Your task to perform on an android device: open app "Booking.com: Hotels and more" (install if not already installed) and go to login screen Image 0: 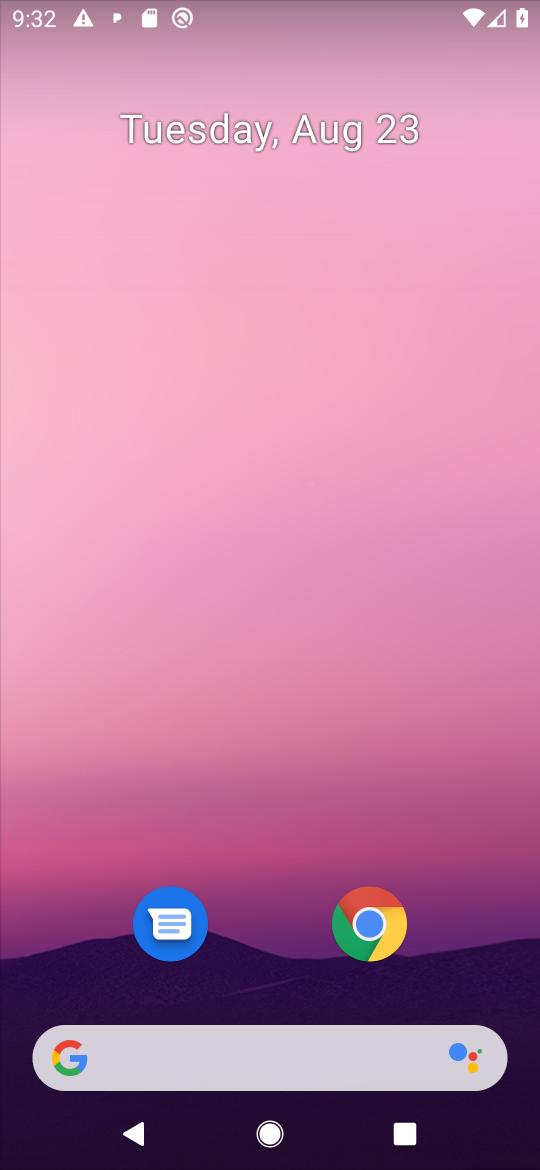
Step 0: drag from (451, 975) to (512, 108)
Your task to perform on an android device: open app "Booking.com: Hotels and more" (install if not already installed) and go to login screen Image 1: 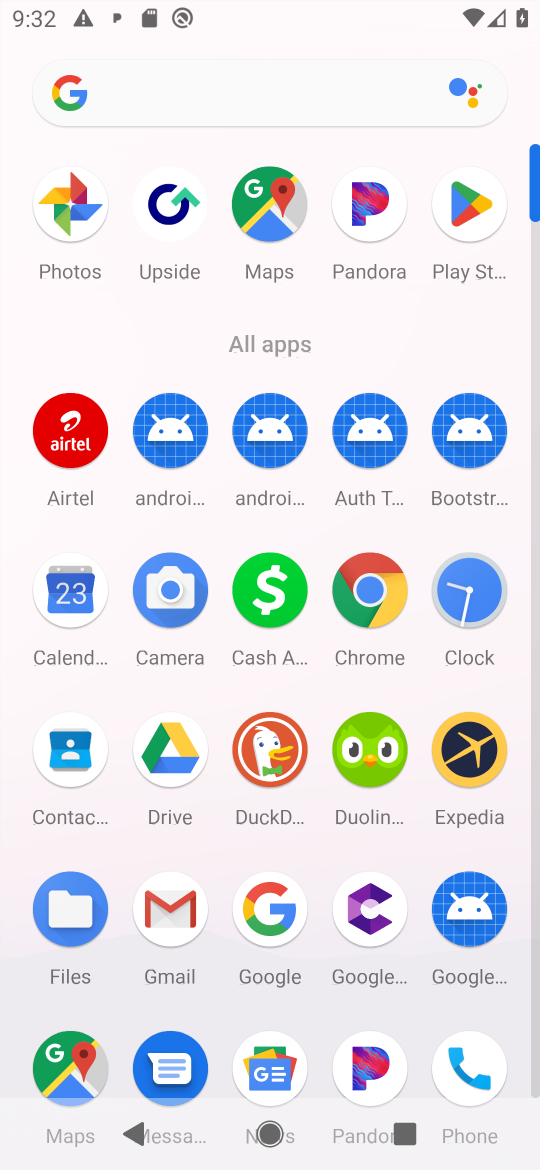
Step 1: click (470, 202)
Your task to perform on an android device: open app "Booking.com: Hotels and more" (install if not already installed) and go to login screen Image 2: 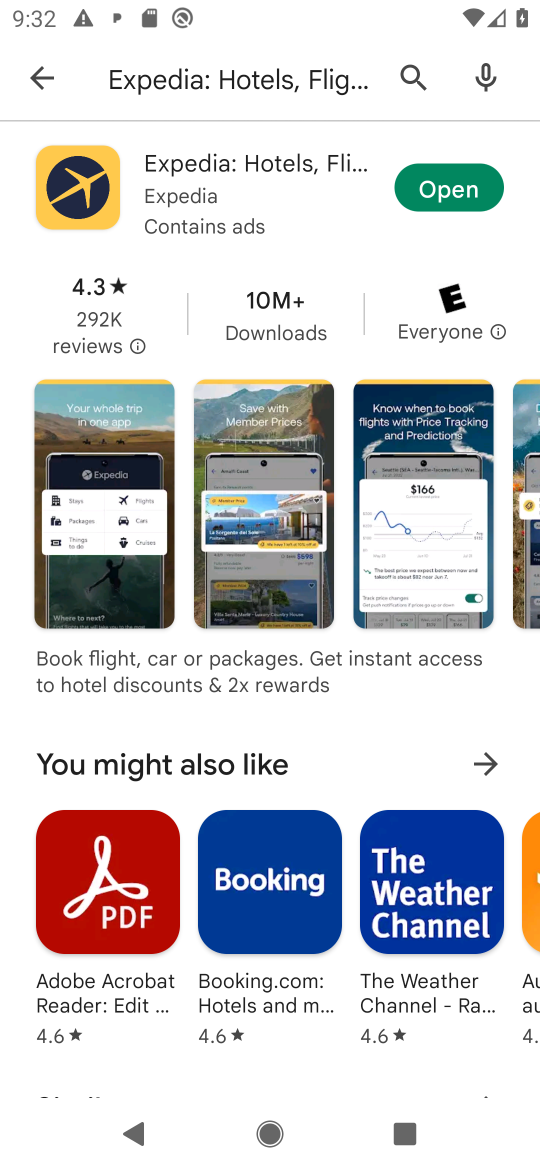
Step 2: press back button
Your task to perform on an android device: open app "Booking.com: Hotels and more" (install if not already installed) and go to login screen Image 3: 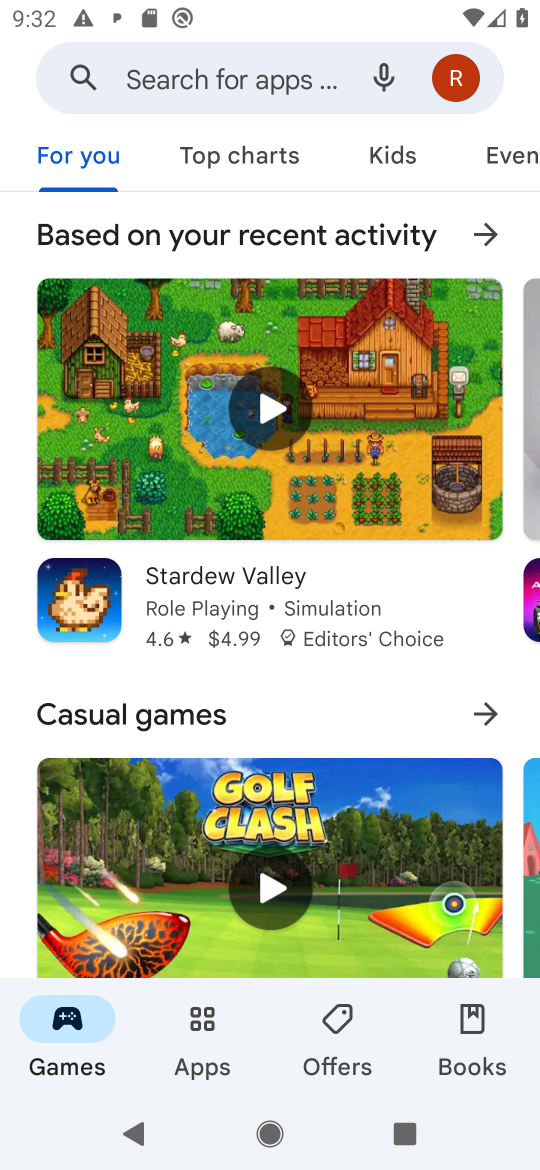
Step 3: click (251, 83)
Your task to perform on an android device: open app "Booking.com: Hotels and more" (install if not already installed) and go to login screen Image 4: 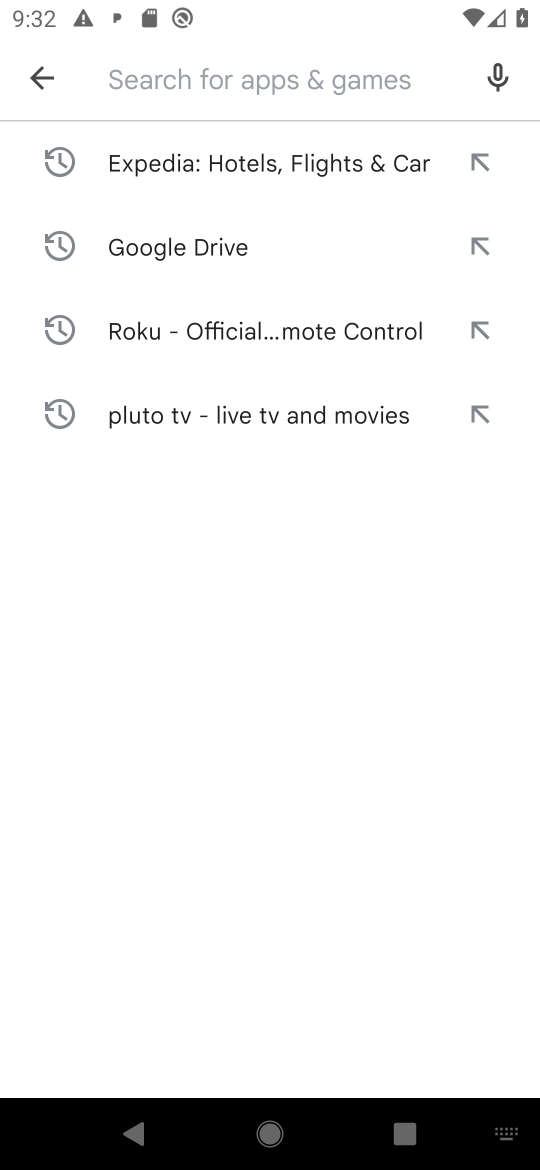
Step 4: type "Booking.com: Hotels and more"
Your task to perform on an android device: open app "Booking.com: Hotels and more" (install if not already installed) and go to login screen Image 5: 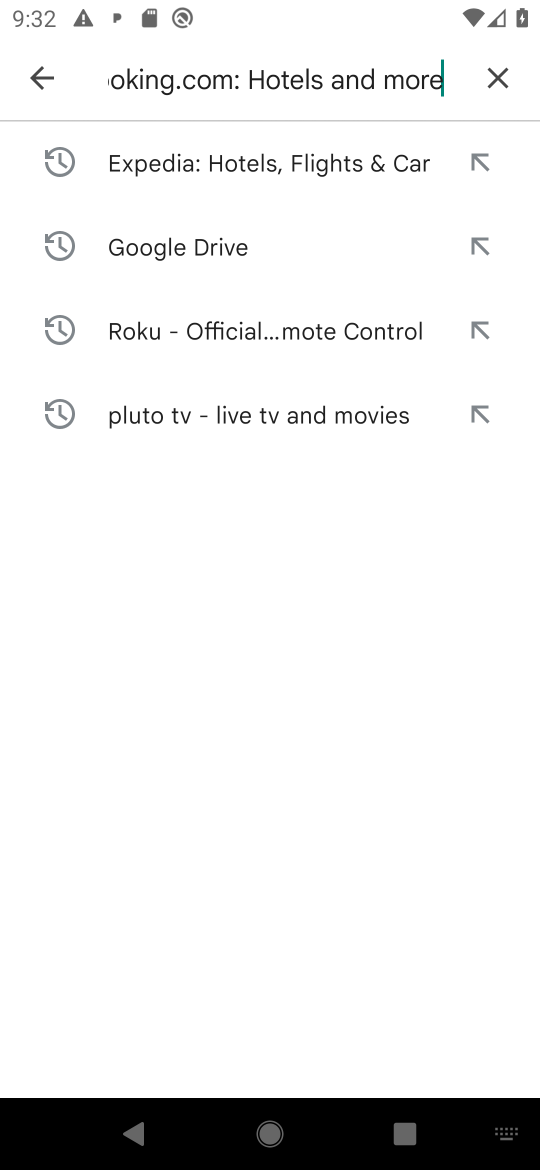
Step 5: press enter
Your task to perform on an android device: open app "Booking.com: Hotels and more" (install if not already installed) and go to login screen Image 6: 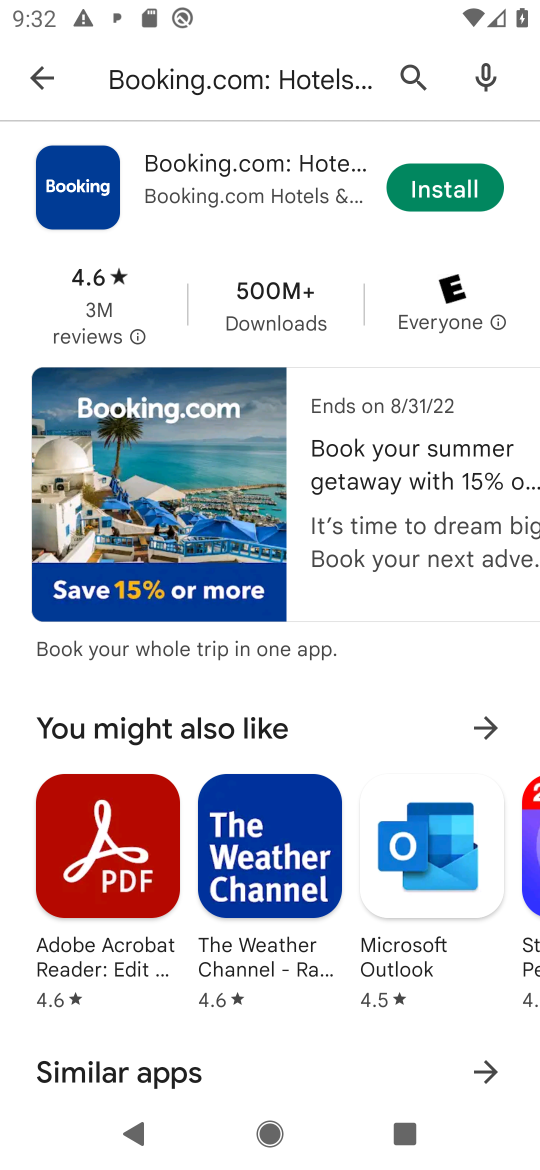
Step 6: click (431, 194)
Your task to perform on an android device: open app "Booking.com: Hotels and more" (install if not already installed) and go to login screen Image 7: 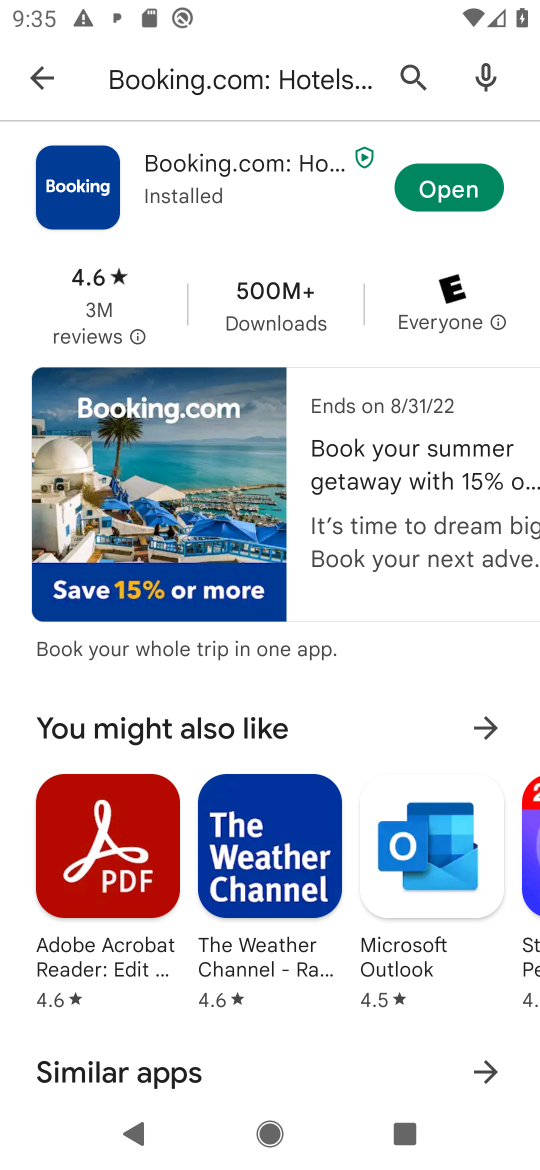
Step 7: click (447, 190)
Your task to perform on an android device: open app "Booking.com: Hotels and more" (install if not already installed) and go to login screen Image 8: 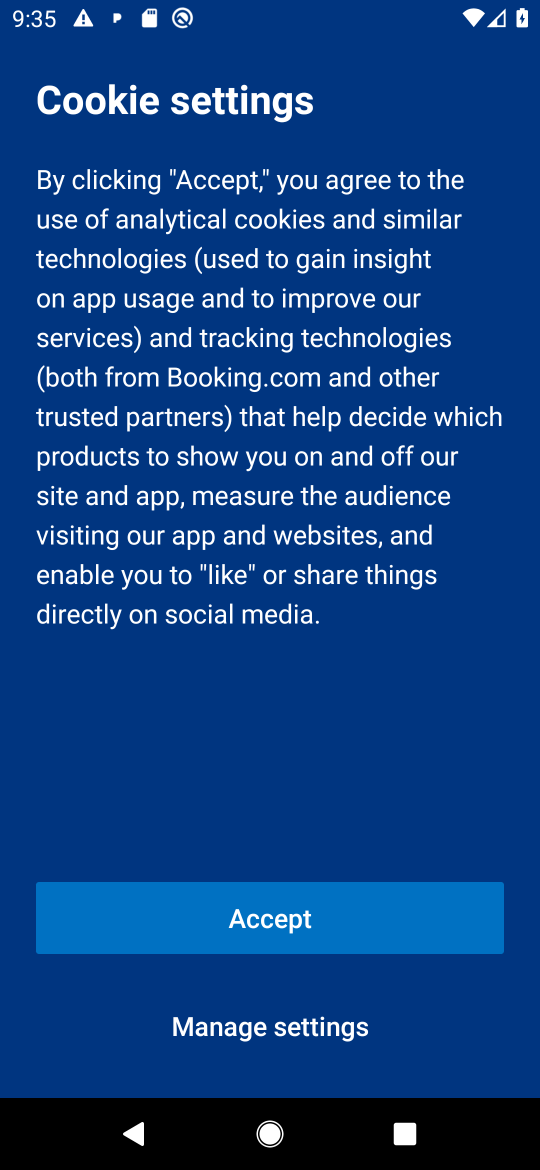
Step 8: task complete